Your task to perform on an android device: Open Android settings Image 0: 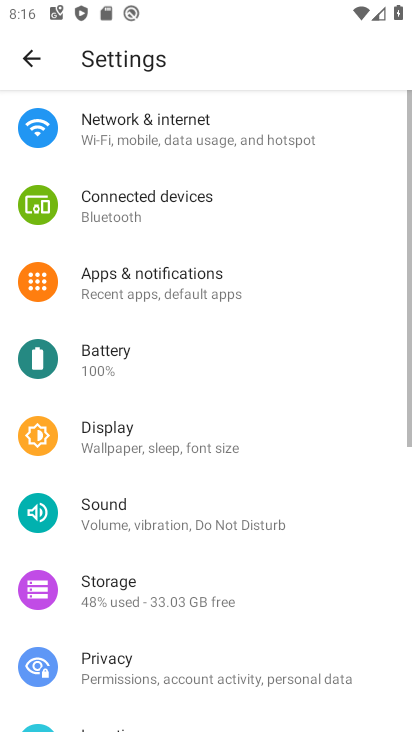
Step 0: task complete